Your task to perform on an android device: When is my next meeting? Image 0: 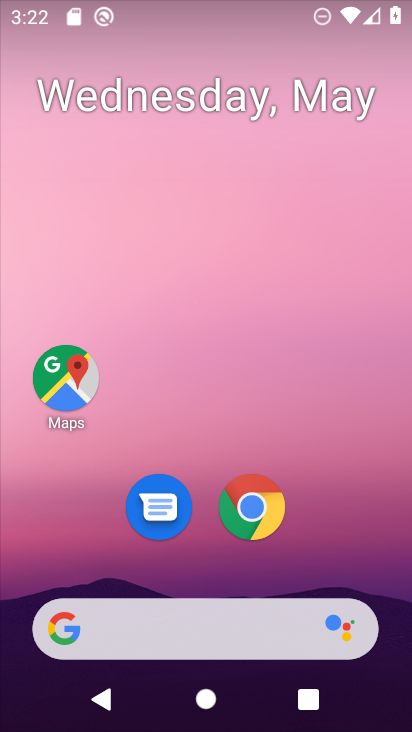
Step 0: drag from (165, 511) to (253, 115)
Your task to perform on an android device: When is my next meeting? Image 1: 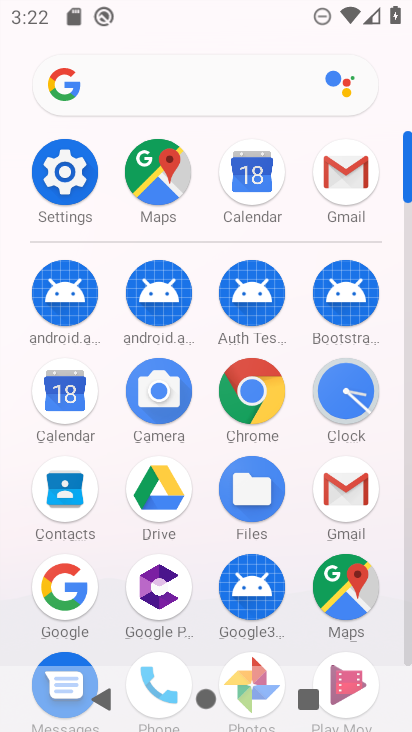
Step 1: click (71, 388)
Your task to perform on an android device: When is my next meeting? Image 2: 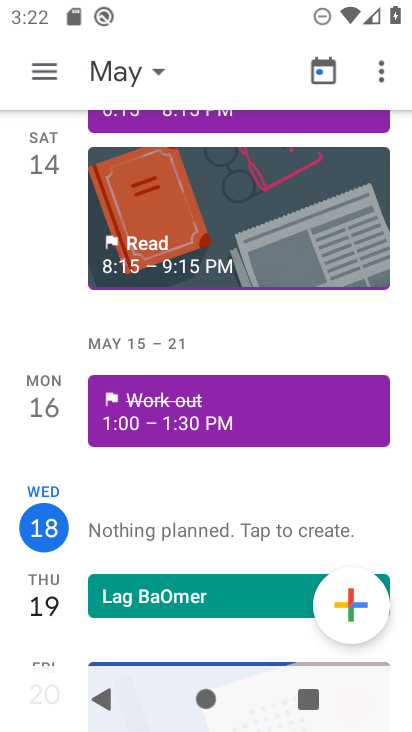
Step 2: task complete